Your task to perform on an android device: Go to Maps Image 0: 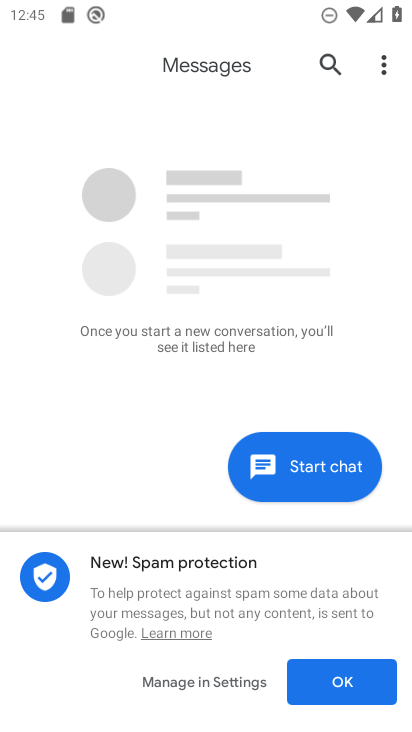
Step 0: press home button
Your task to perform on an android device: Go to Maps Image 1: 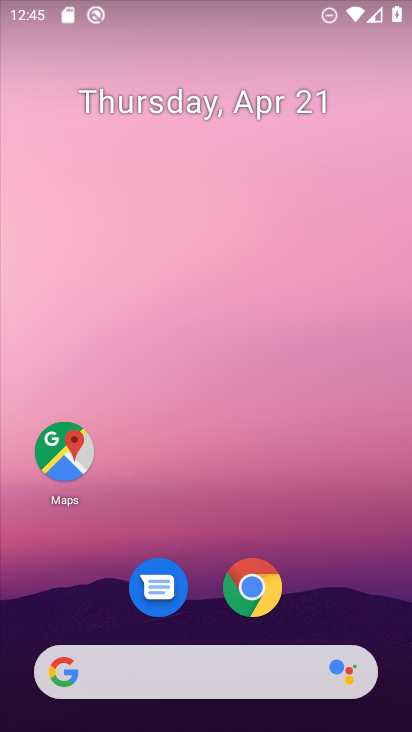
Step 1: click (60, 463)
Your task to perform on an android device: Go to Maps Image 2: 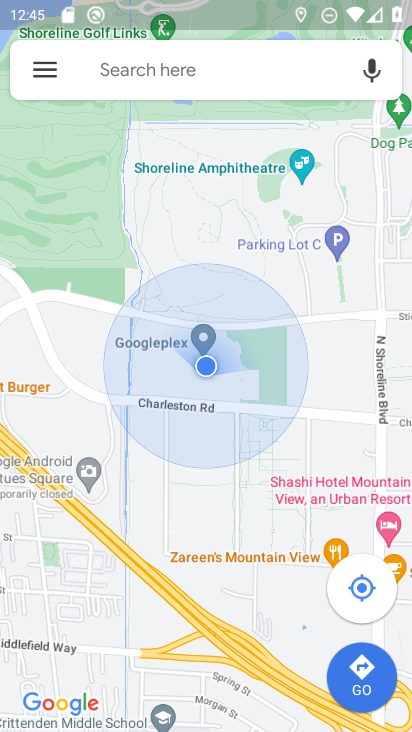
Step 2: task complete